Your task to perform on an android device: Open internet settings Image 0: 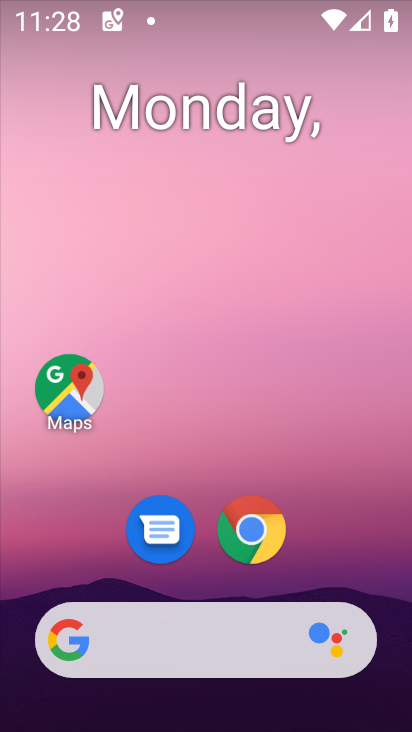
Step 0: press home button
Your task to perform on an android device: Open internet settings Image 1: 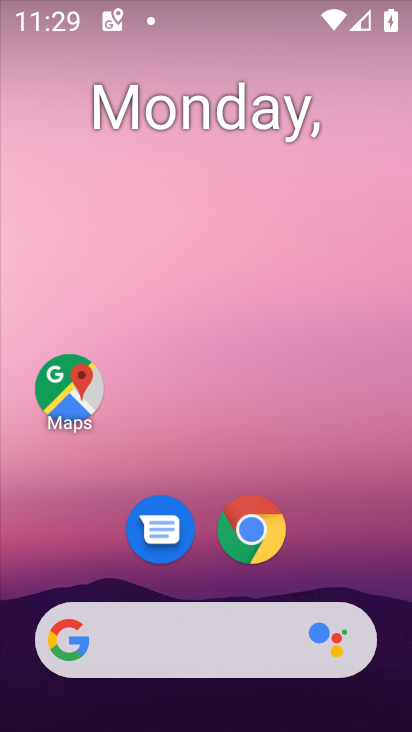
Step 1: drag from (216, 691) to (226, 404)
Your task to perform on an android device: Open internet settings Image 2: 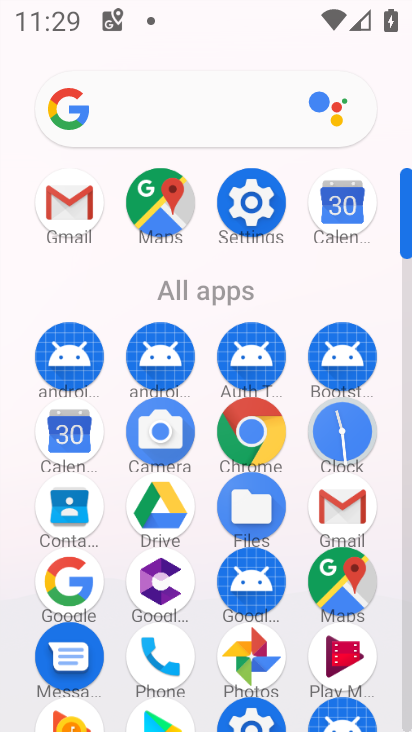
Step 2: click (255, 220)
Your task to perform on an android device: Open internet settings Image 3: 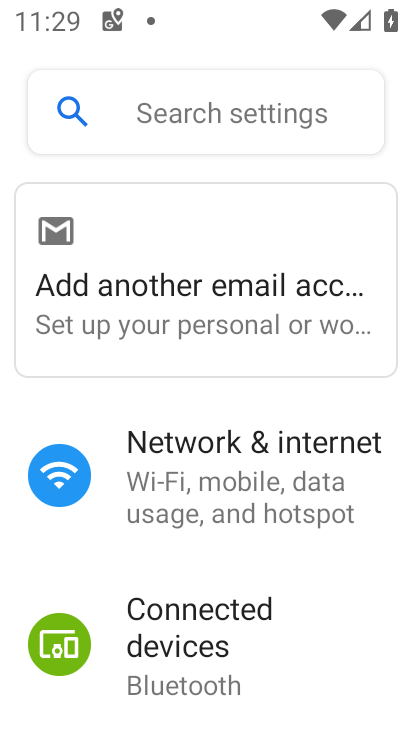
Step 3: click (185, 454)
Your task to perform on an android device: Open internet settings Image 4: 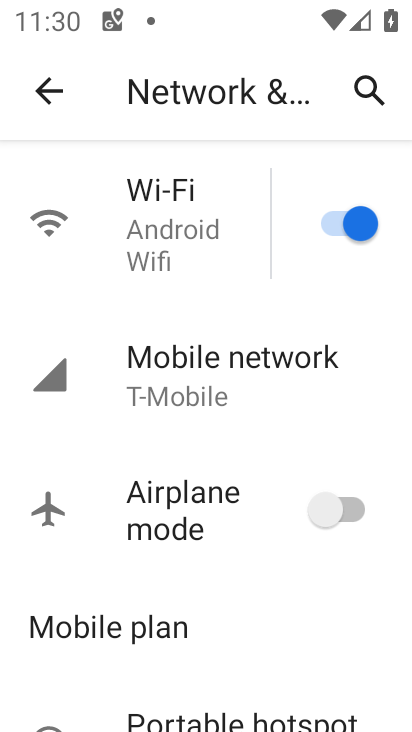
Step 4: task complete